Your task to perform on an android device: Open Wikipedia Image 0: 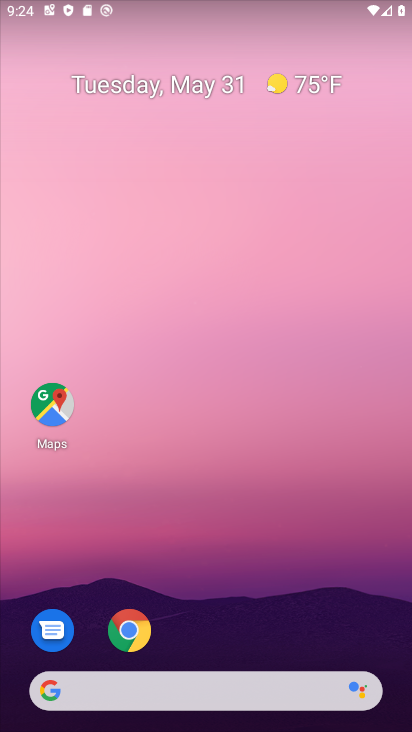
Step 0: drag from (254, 658) to (324, 156)
Your task to perform on an android device: Open Wikipedia Image 1: 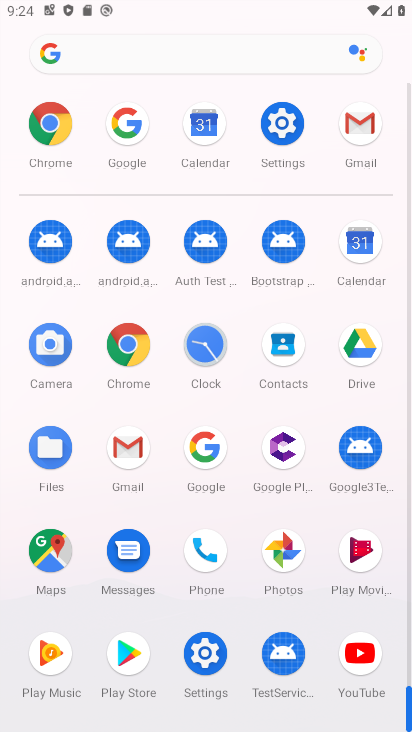
Step 1: click (123, 371)
Your task to perform on an android device: Open Wikipedia Image 2: 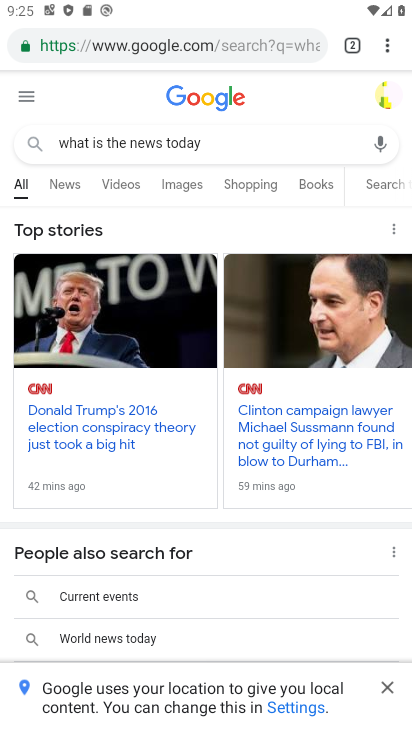
Step 2: click (249, 145)
Your task to perform on an android device: Open Wikipedia Image 3: 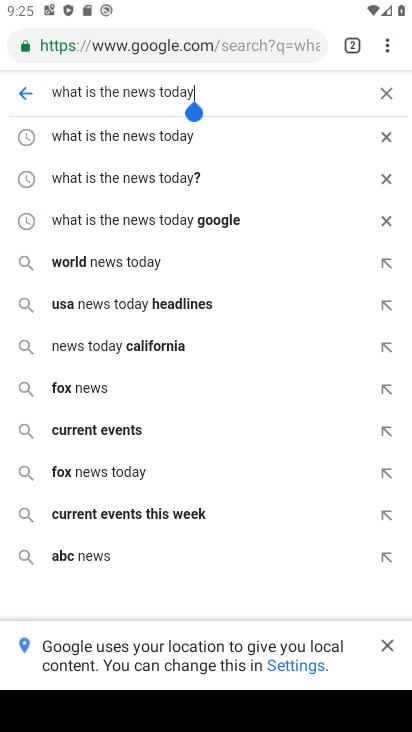
Step 3: click (256, 47)
Your task to perform on an android device: Open Wikipedia Image 4: 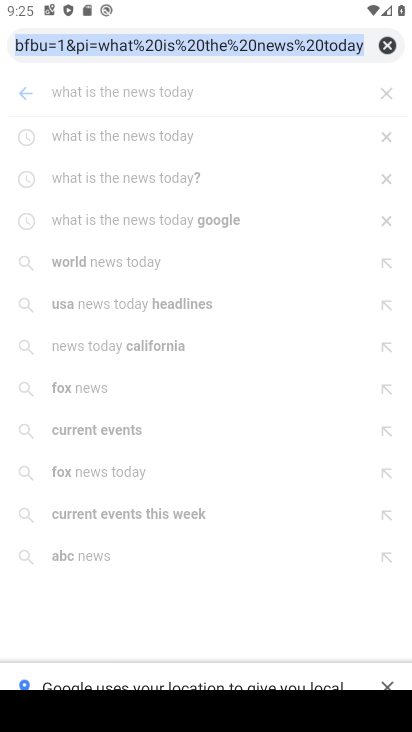
Step 4: type "wiki"
Your task to perform on an android device: Open Wikipedia Image 5: 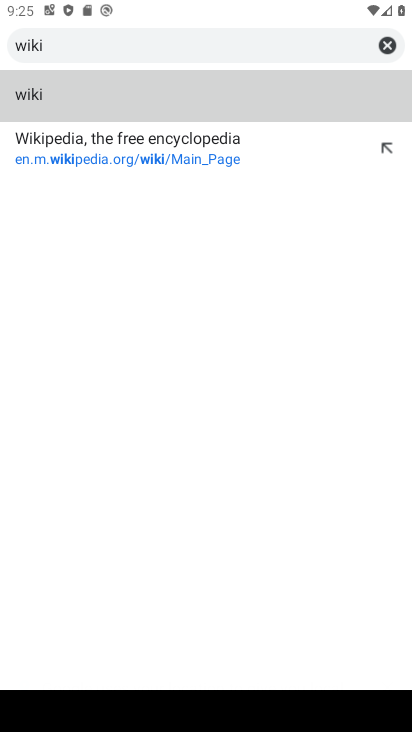
Step 5: click (206, 155)
Your task to perform on an android device: Open Wikipedia Image 6: 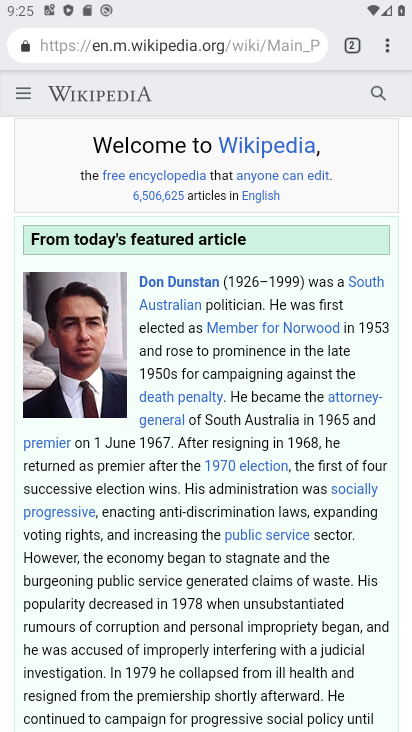
Step 6: task complete